Your task to perform on an android device: visit the assistant section in the google photos Image 0: 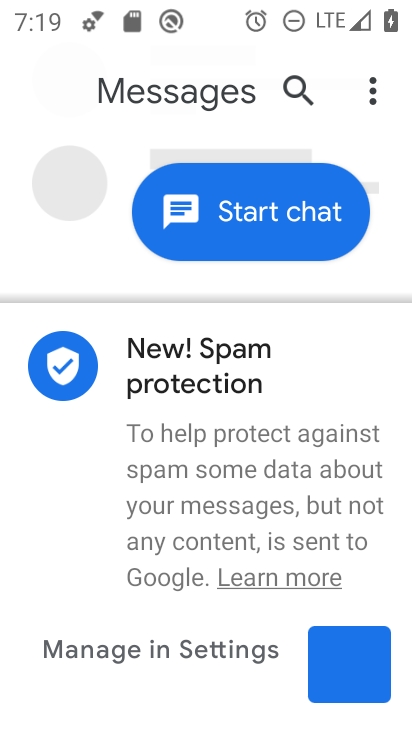
Step 0: press home button
Your task to perform on an android device: visit the assistant section in the google photos Image 1: 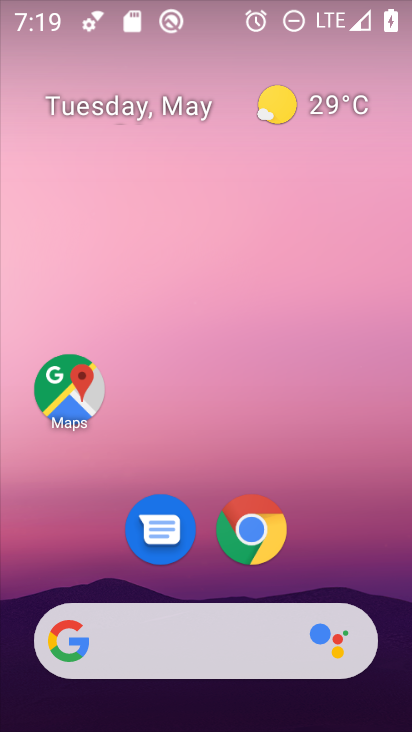
Step 1: drag from (391, 690) to (254, 12)
Your task to perform on an android device: visit the assistant section in the google photos Image 2: 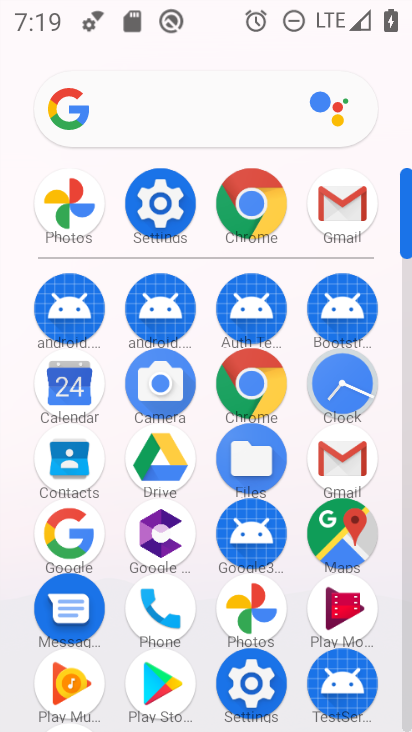
Step 2: click (251, 606)
Your task to perform on an android device: visit the assistant section in the google photos Image 3: 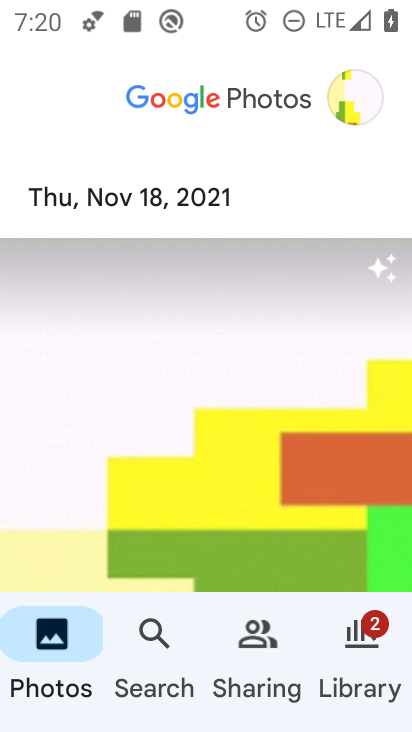
Step 3: task complete